Your task to perform on an android device: Toggle the flashlight Image 0: 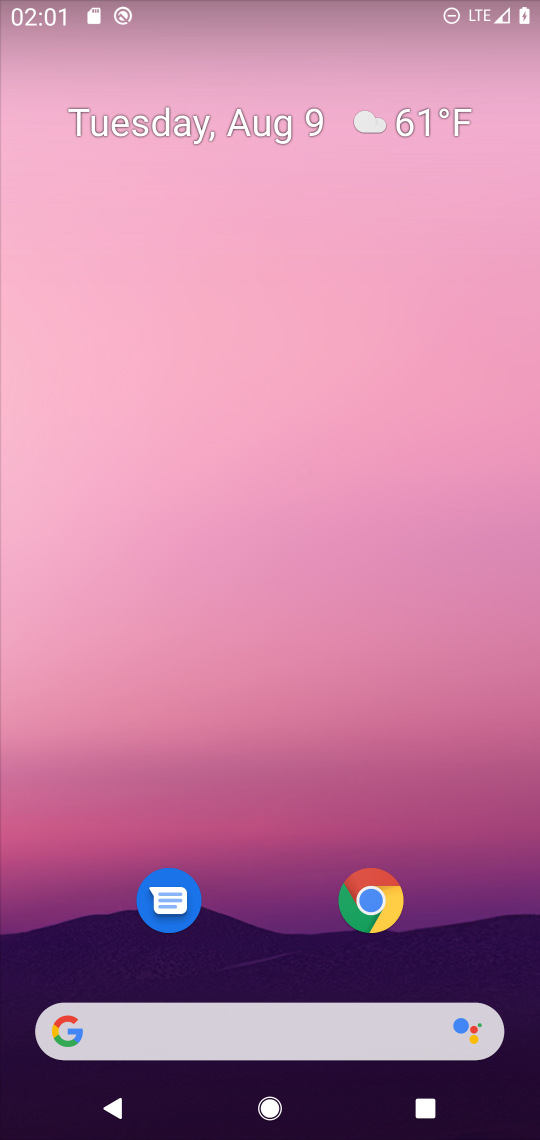
Step 0: press home button
Your task to perform on an android device: Toggle the flashlight Image 1: 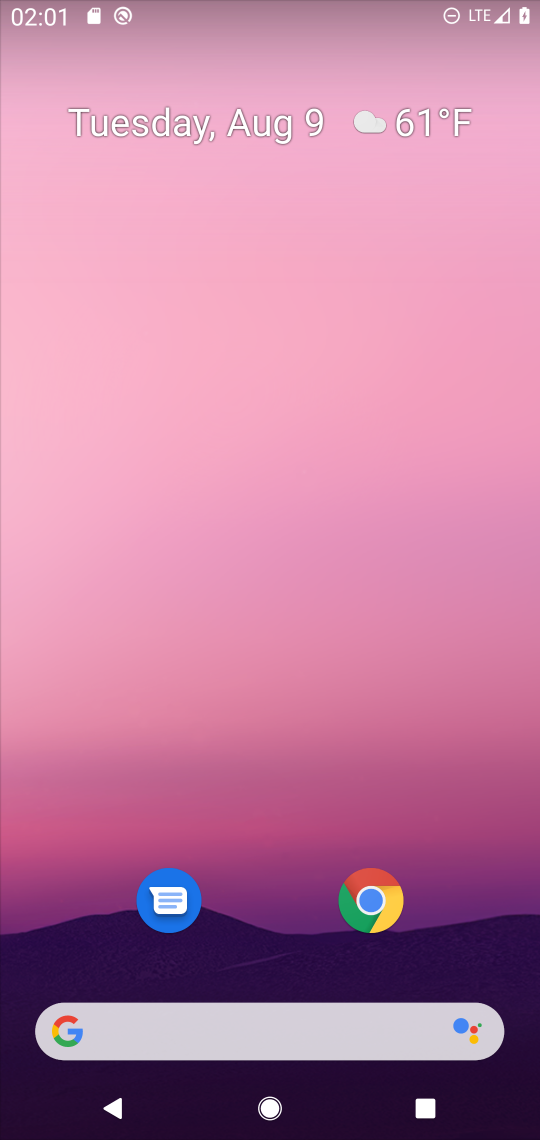
Step 1: drag from (241, 8) to (290, 699)
Your task to perform on an android device: Toggle the flashlight Image 2: 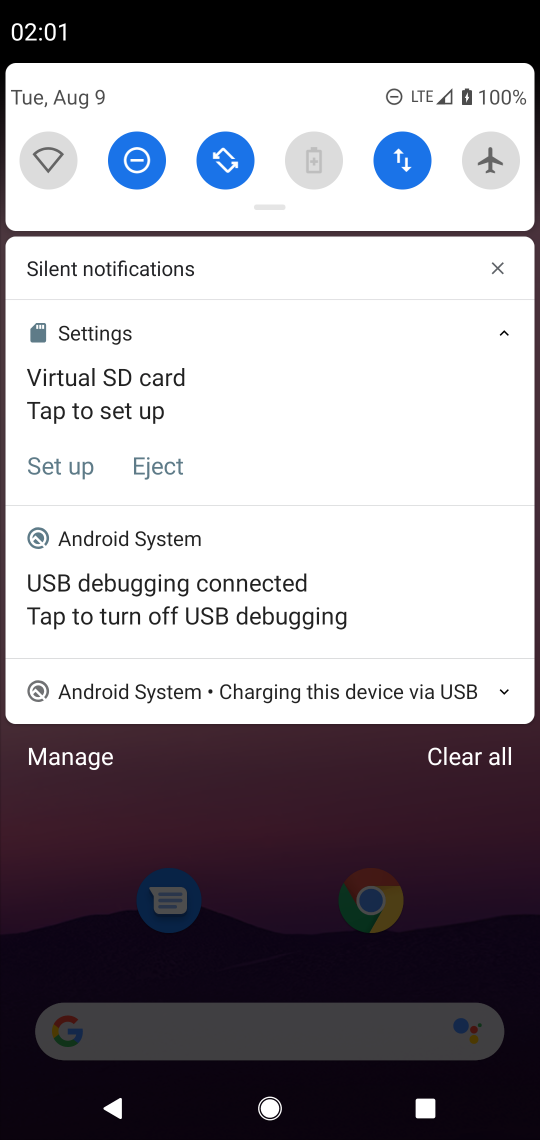
Step 2: drag from (276, 99) to (287, 604)
Your task to perform on an android device: Toggle the flashlight Image 3: 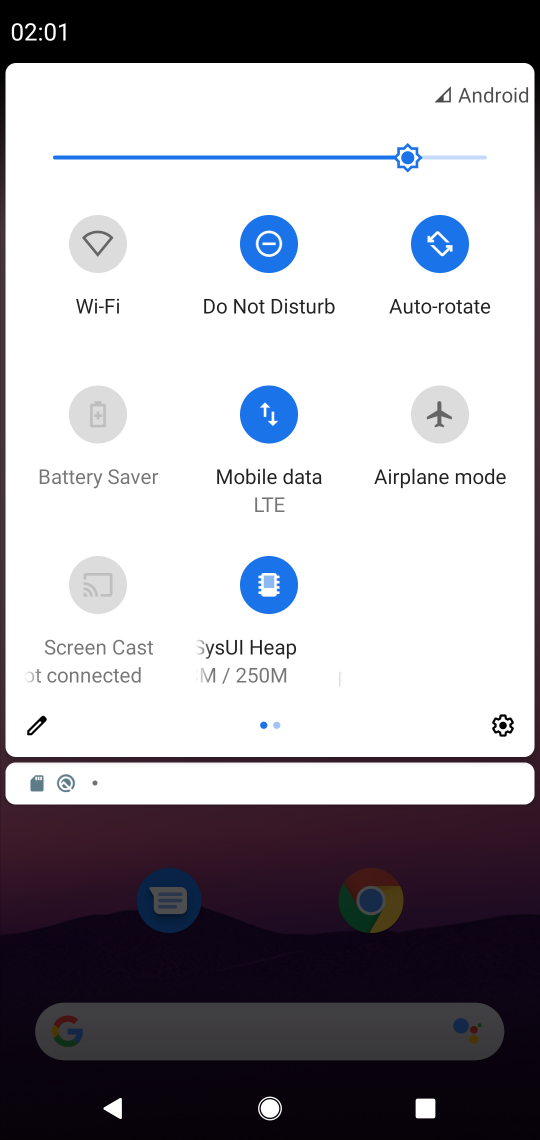
Step 3: click (31, 732)
Your task to perform on an android device: Toggle the flashlight Image 4: 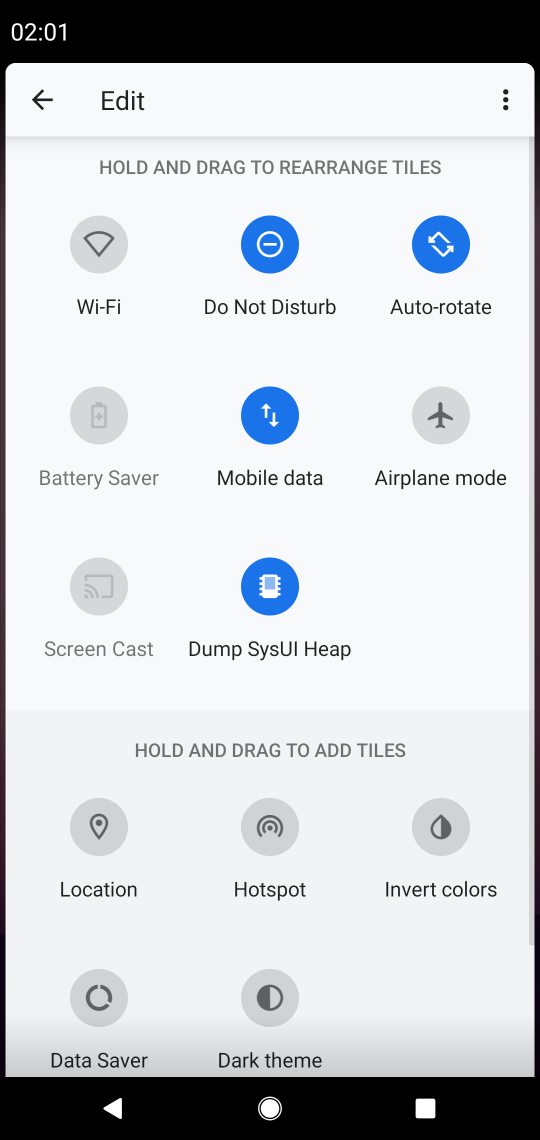
Step 4: task complete